Your task to perform on an android device: manage bookmarks in the chrome app Image 0: 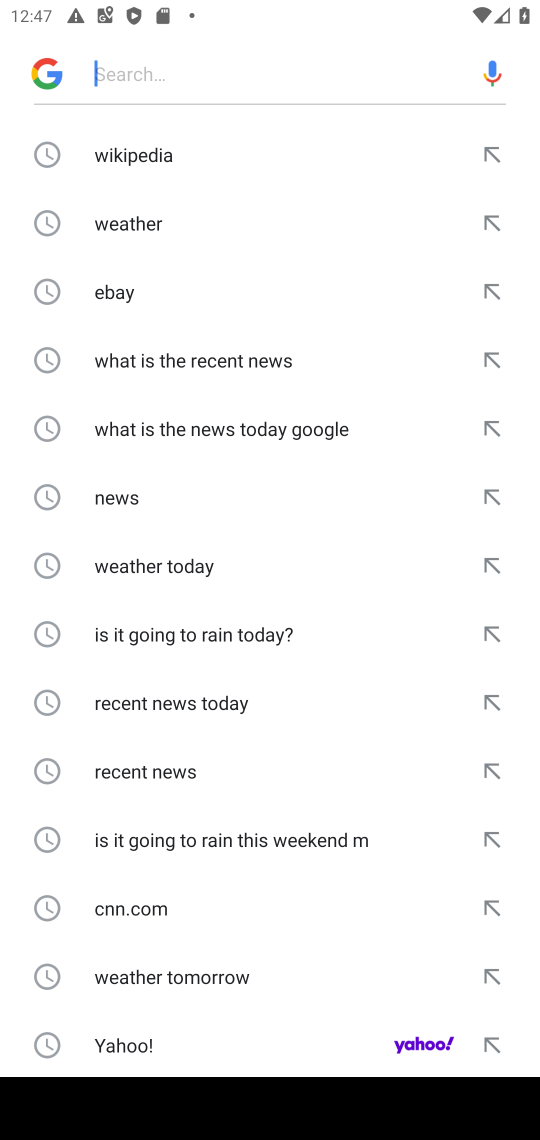
Step 0: drag from (502, 944) to (306, 149)
Your task to perform on an android device: manage bookmarks in the chrome app Image 1: 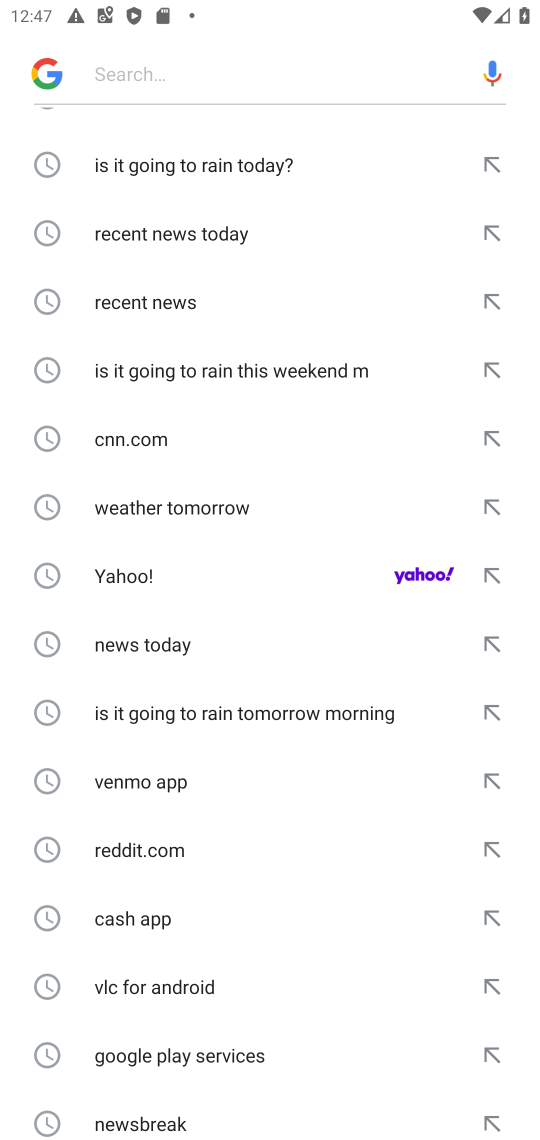
Step 1: press home button
Your task to perform on an android device: manage bookmarks in the chrome app Image 2: 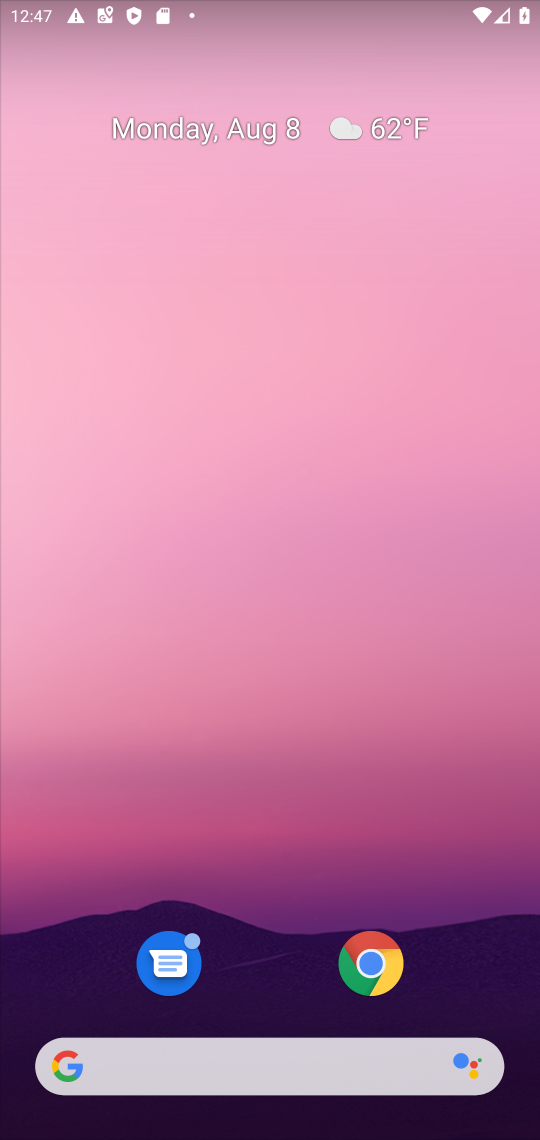
Step 2: drag from (463, 990) to (263, 18)
Your task to perform on an android device: manage bookmarks in the chrome app Image 3: 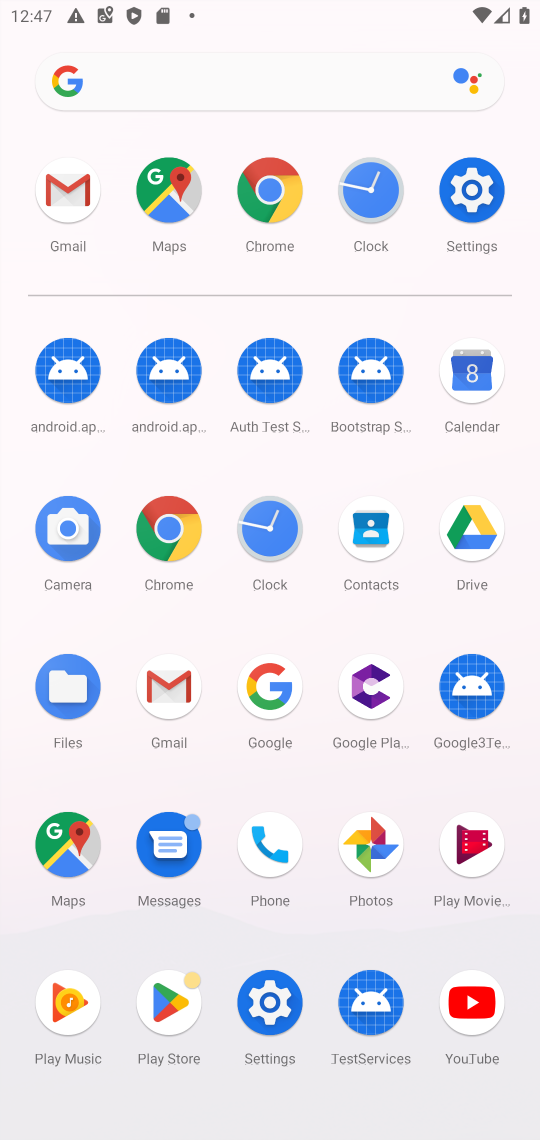
Step 3: click (164, 549)
Your task to perform on an android device: manage bookmarks in the chrome app Image 4: 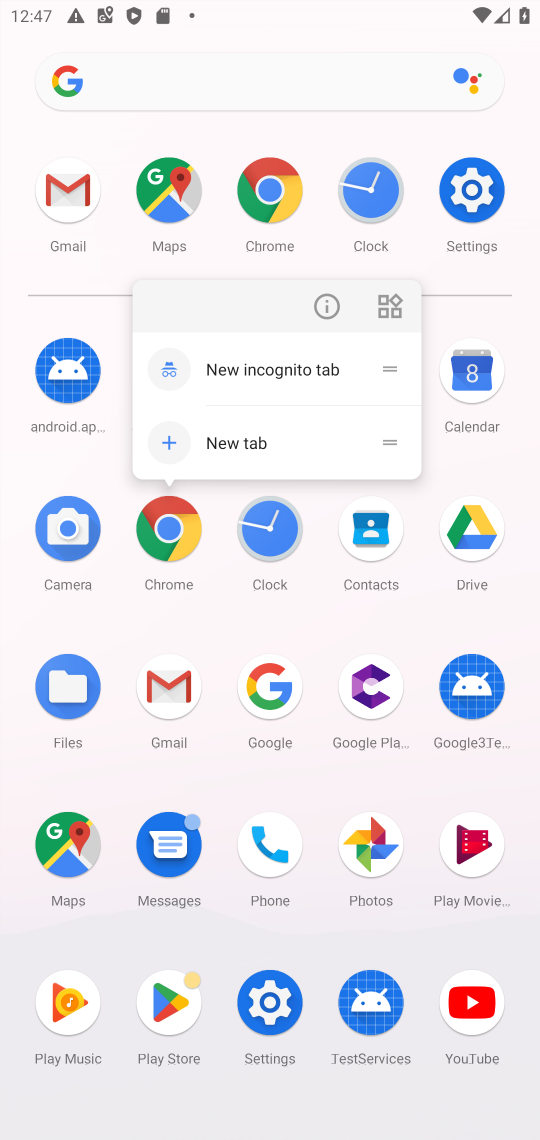
Step 4: click (164, 549)
Your task to perform on an android device: manage bookmarks in the chrome app Image 5: 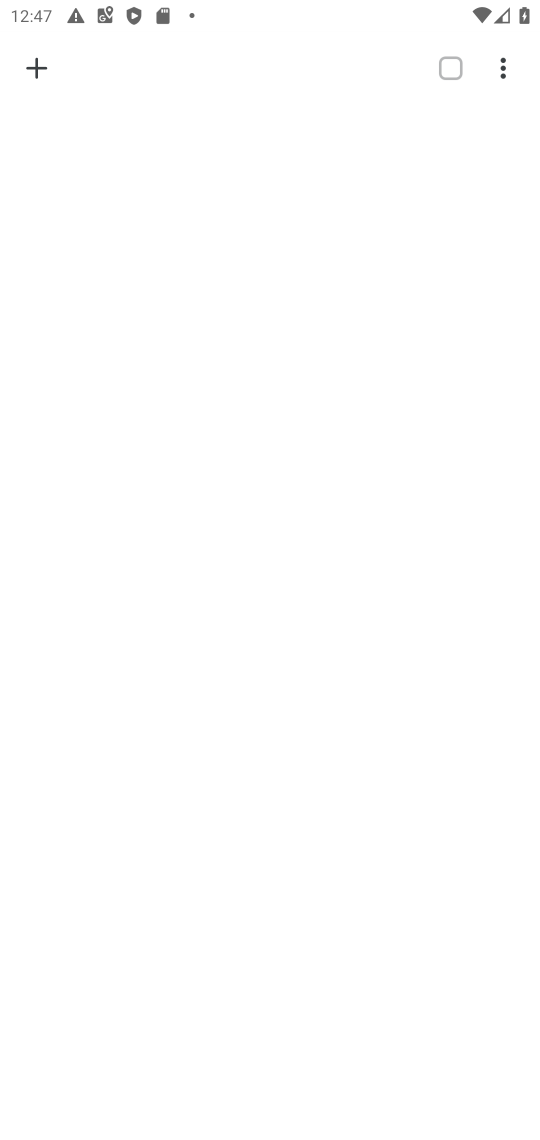
Step 5: task complete